Your task to perform on an android device: Go to notification settings Image 0: 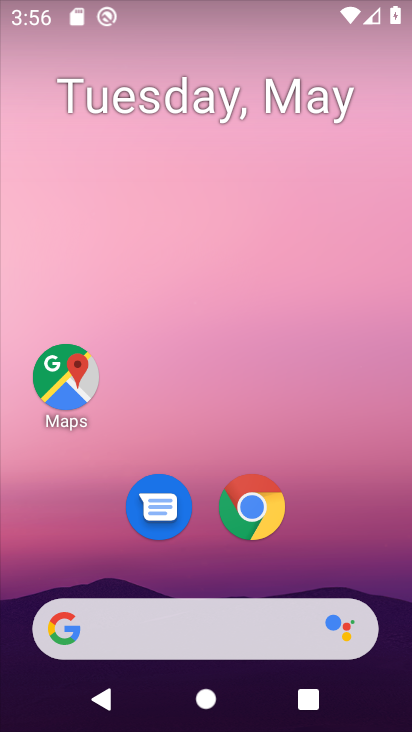
Step 0: drag from (222, 587) to (252, 61)
Your task to perform on an android device: Go to notification settings Image 1: 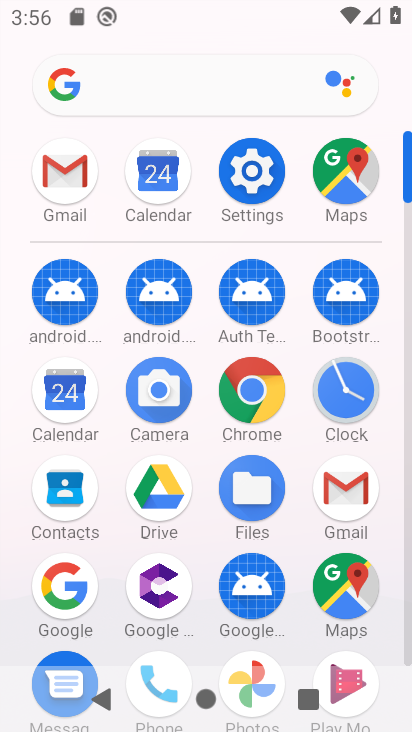
Step 1: click (240, 160)
Your task to perform on an android device: Go to notification settings Image 2: 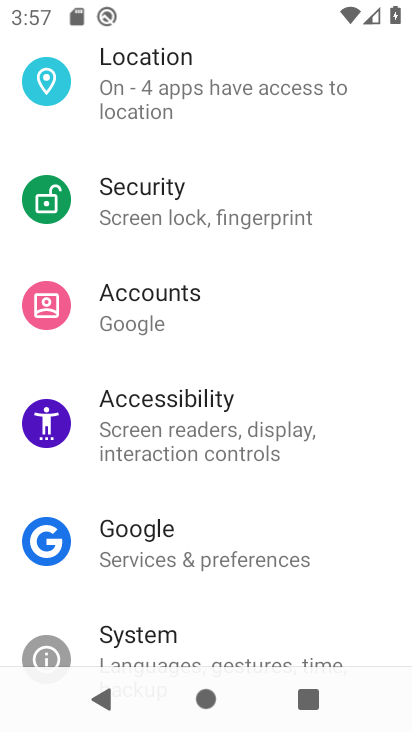
Step 2: drag from (198, 276) to (216, 464)
Your task to perform on an android device: Go to notification settings Image 3: 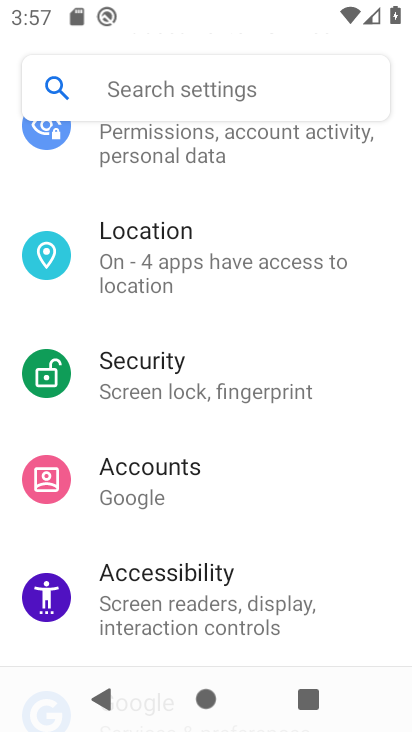
Step 3: drag from (133, 232) to (188, 467)
Your task to perform on an android device: Go to notification settings Image 4: 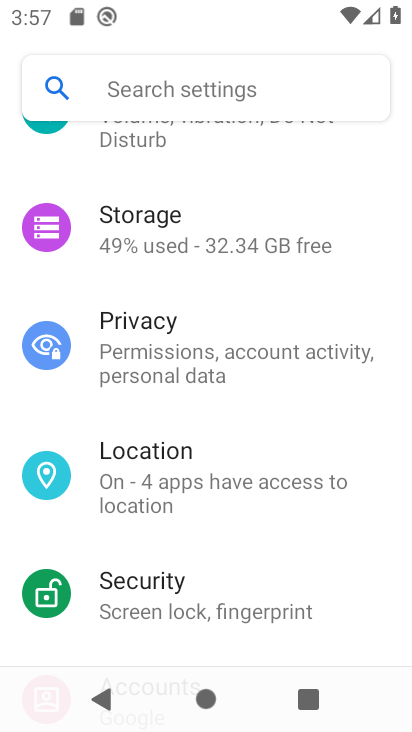
Step 4: drag from (189, 223) to (251, 519)
Your task to perform on an android device: Go to notification settings Image 5: 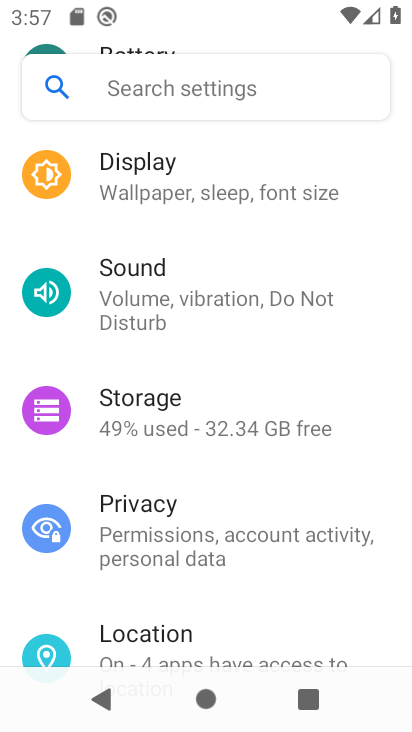
Step 5: drag from (204, 320) to (184, 558)
Your task to perform on an android device: Go to notification settings Image 6: 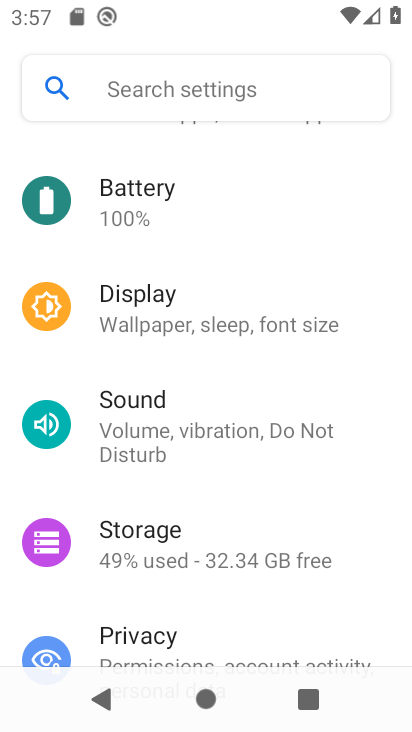
Step 6: drag from (259, 235) to (251, 394)
Your task to perform on an android device: Go to notification settings Image 7: 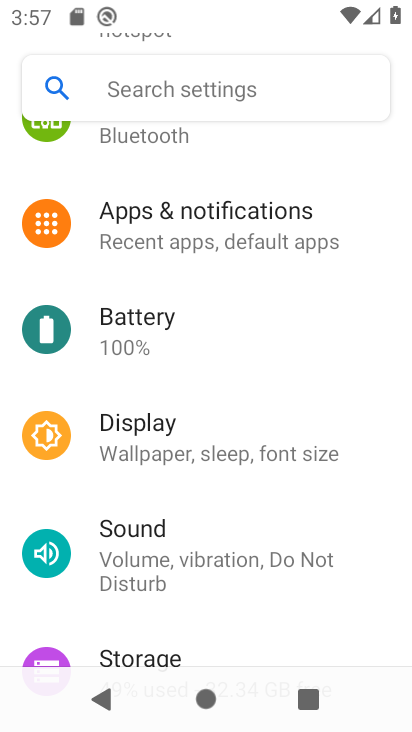
Step 7: click (211, 232)
Your task to perform on an android device: Go to notification settings Image 8: 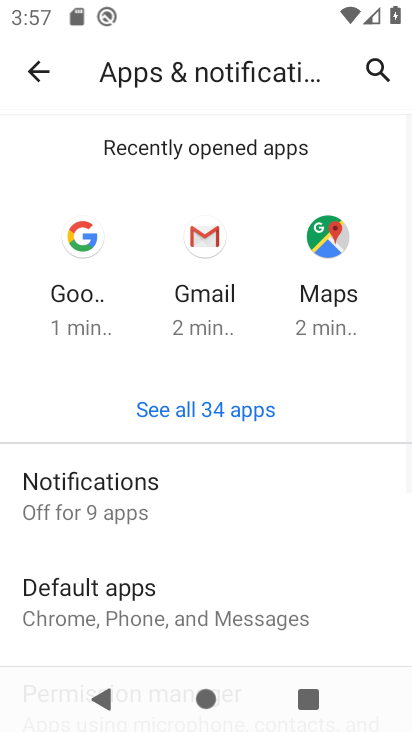
Step 8: click (90, 482)
Your task to perform on an android device: Go to notification settings Image 9: 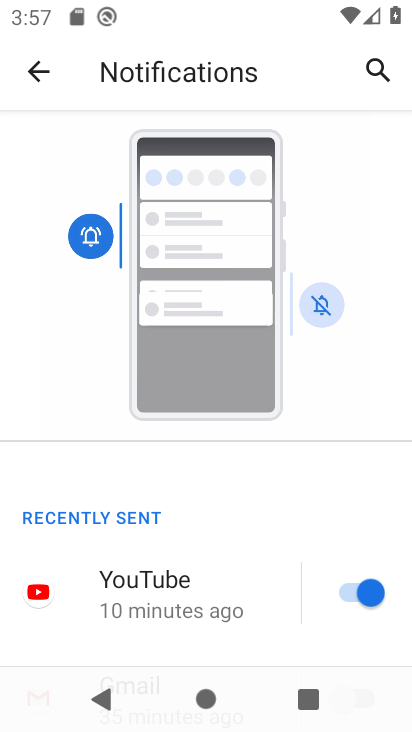
Step 9: task complete